Your task to perform on an android device: Search for the best rated headphones on amazon.com Image 0: 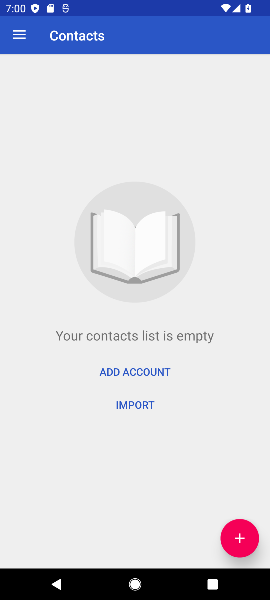
Step 0: press home button
Your task to perform on an android device: Search for the best rated headphones on amazon.com Image 1: 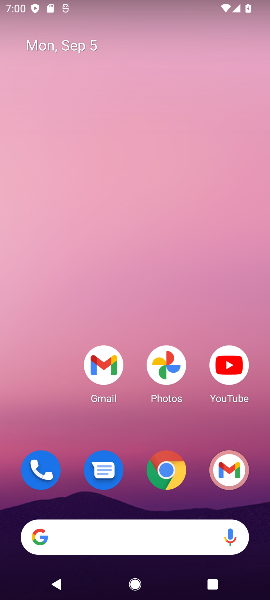
Step 1: click (100, 536)
Your task to perform on an android device: Search for the best rated headphones on amazon.com Image 2: 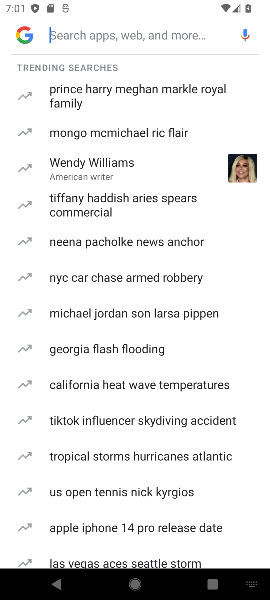
Step 2: type "amazon"
Your task to perform on an android device: Search for the best rated headphones on amazon.com Image 3: 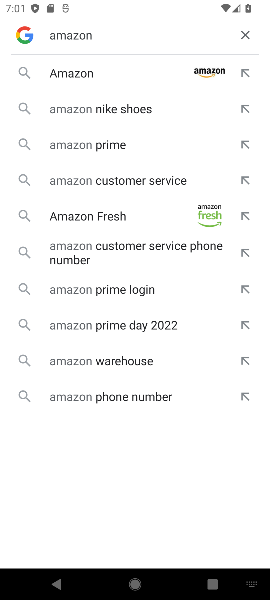
Step 3: click (80, 75)
Your task to perform on an android device: Search for the best rated headphones on amazon.com Image 4: 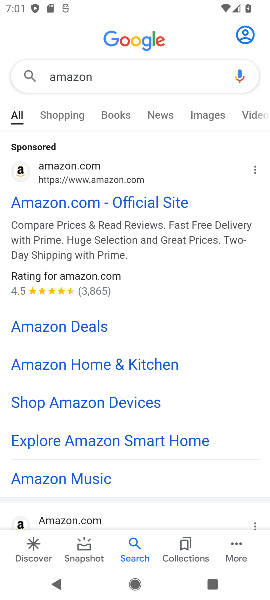
Step 4: click (80, 199)
Your task to perform on an android device: Search for the best rated headphones on amazon.com Image 5: 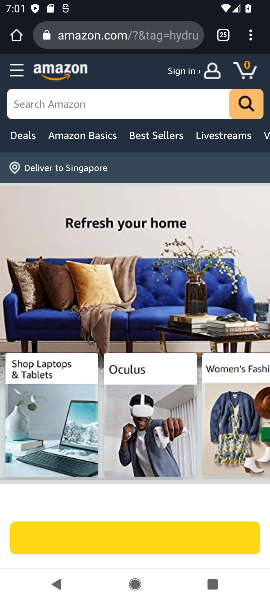
Step 5: click (119, 101)
Your task to perform on an android device: Search for the best rated headphones on amazon.com Image 6: 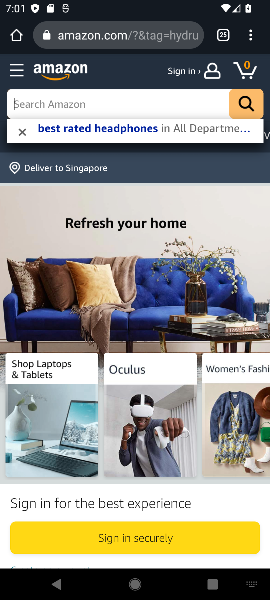
Step 6: click (141, 127)
Your task to perform on an android device: Search for the best rated headphones on amazon.com Image 7: 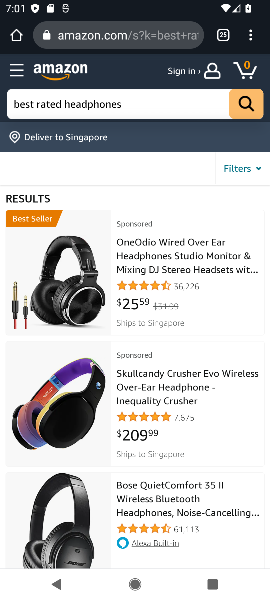
Step 7: task complete